Your task to perform on an android device: turn off priority inbox in the gmail app Image 0: 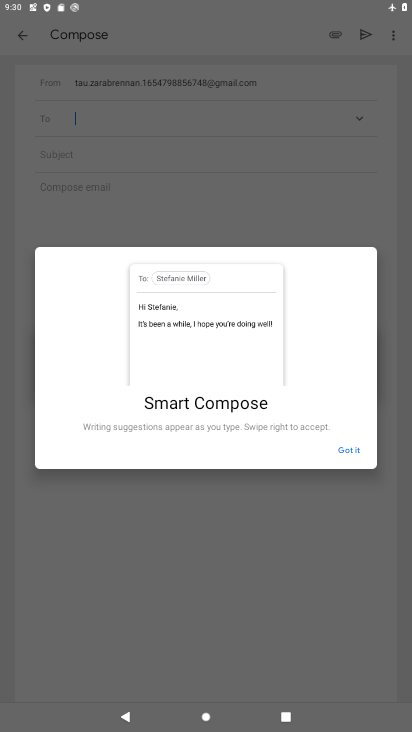
Step 0: press home button
Your task to perform on an android device: turn off priority inbox in the gmail app Image 1: 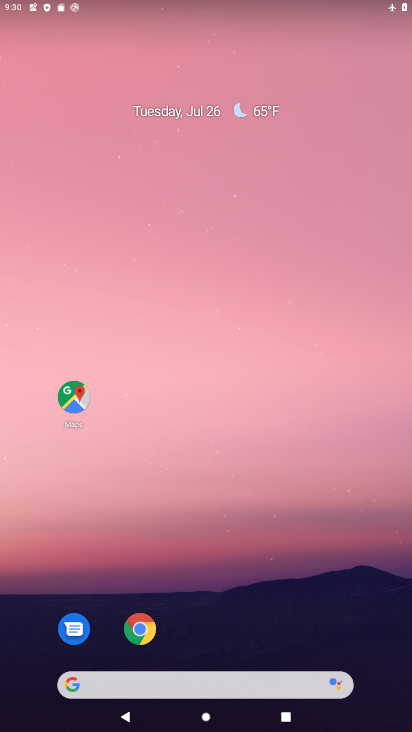
Step 1: drag from (298, 541) to (222, 57)
Your task to perform on an android device: turn off priority inbox in the gmail app Image 2: 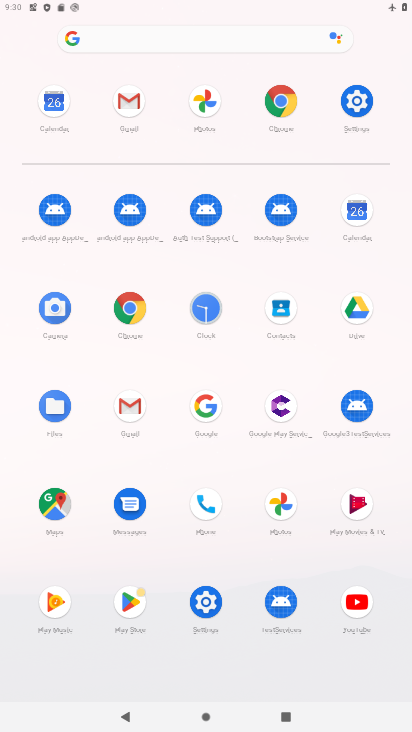
Step 2: click (138, 105)
Your task to perform on an android device: turn off priority inbox in the gmail app Image 3: 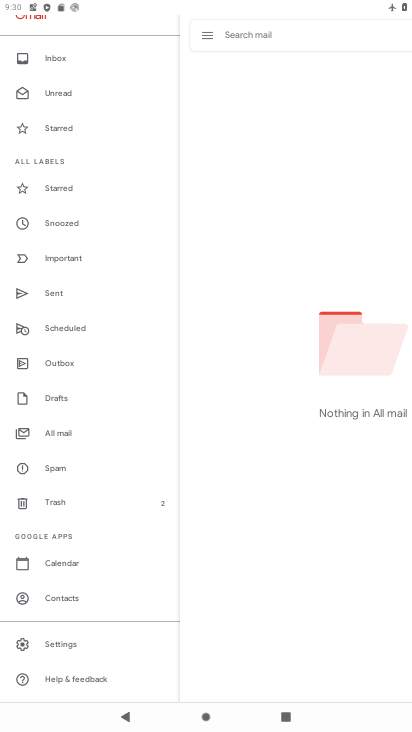
Step 3: click (63, 647)
Your task to perform on an android device: turn off priority inbox in the gmail app Image 4: 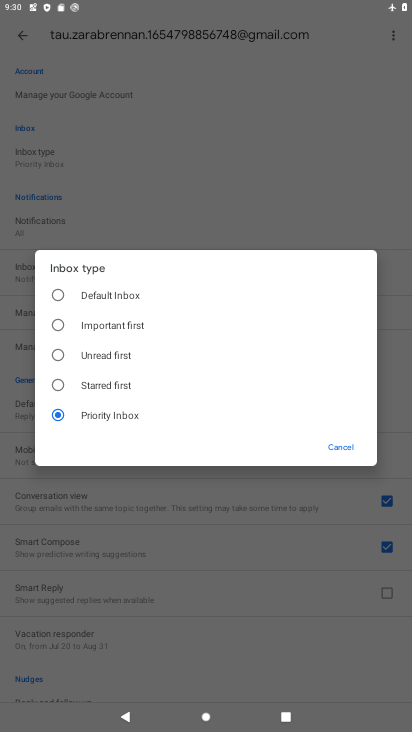
Step 4: task complete